Your task to perform on an android device: Search for sushi restaurants on Maps Image 0: 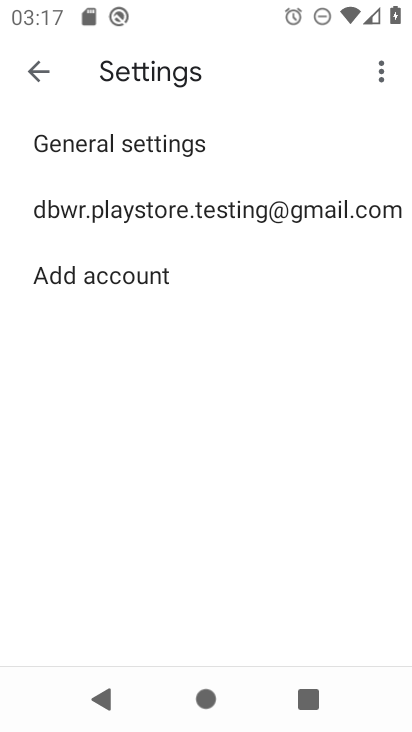
Step 0: press home button
Your task to perform on an android device: Search for sushi restaurants on Maps Image 1: 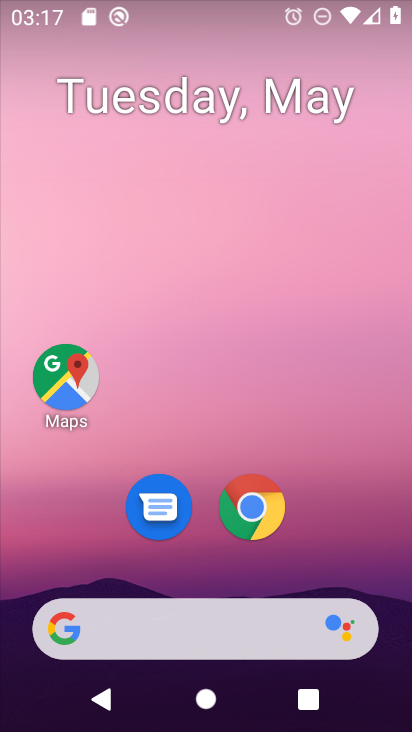
Step 1: click (63, 403)
Your task to perform on an android device: Search for sushi restaurants on Maps Image 2: 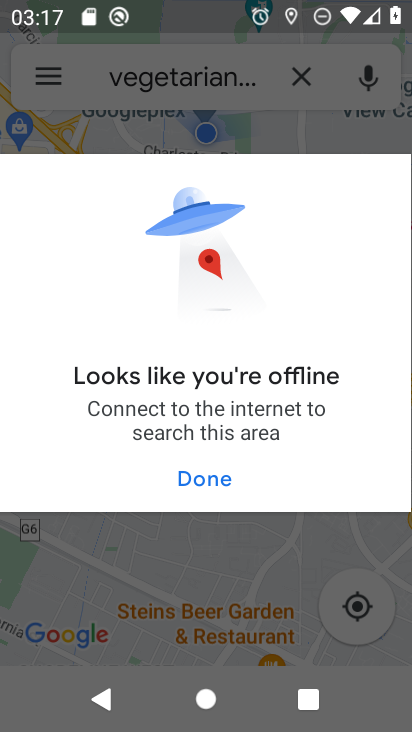
Step 2: task complete